Your task to perform on an android device: Find coffee shops on Maps Image 0: 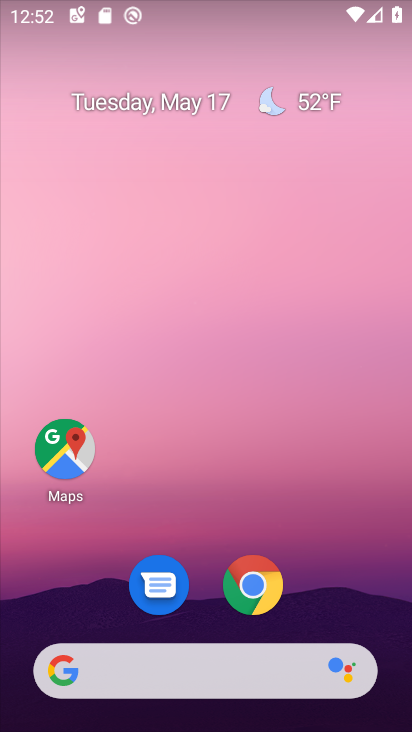
Step 0: click (68, 437)
Your task to perform on an android device: Find coffee shops on Maps Image 1: 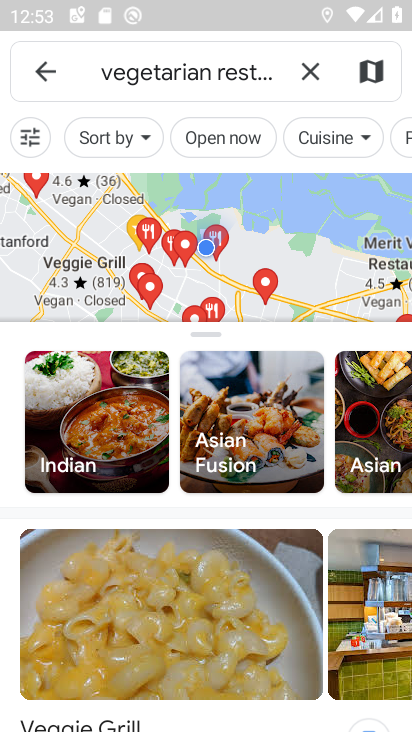
Step 1: click (309, 65)
Your task to perform on an android device: Find coffee shops on Maps Image 2: 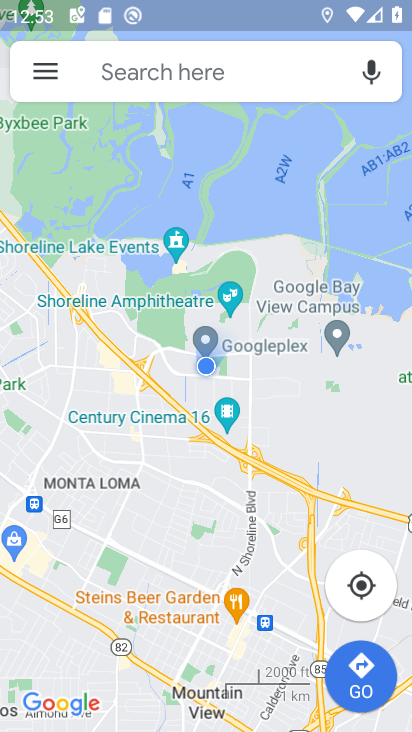
Step 2: click (246, 75)
Your task to perform on an android device: Find coffee shops on Maps Image 3: 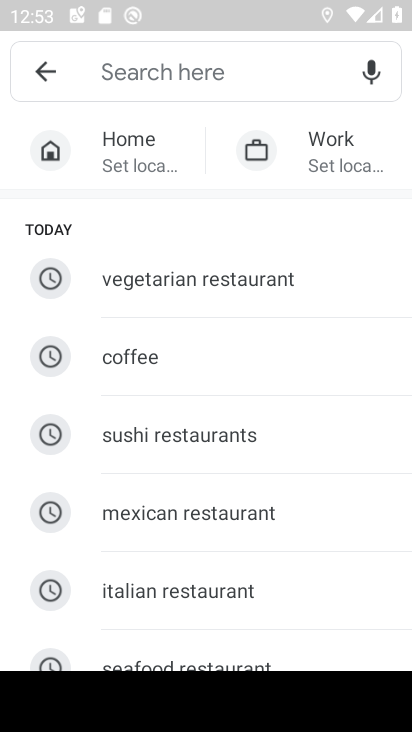
Step 3: click (168, 355)
Your task to perform on an android device: Find coffee shops on Maps Image 4: 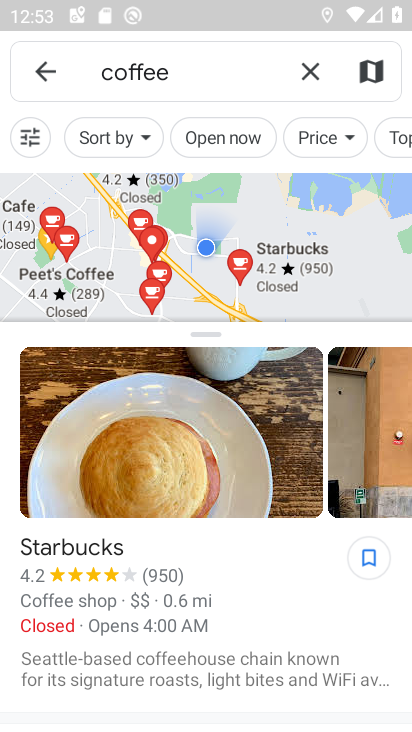
Step 4: task complete